Your task to perform on an android device: star an email in the gmail app Image 0: 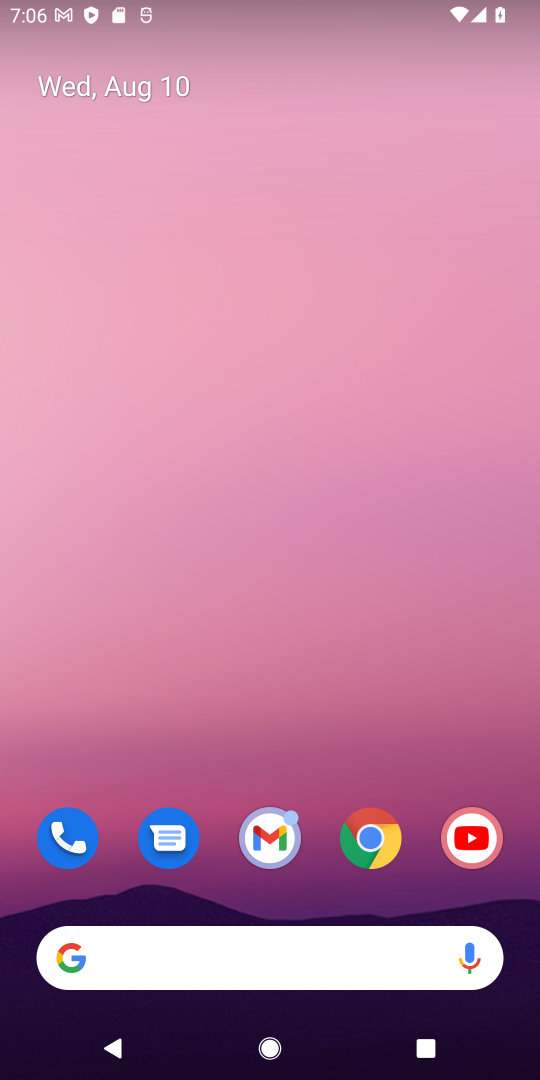
Step 0: drag from (295, 862) to (386, 231)
Your task to perform on an android device: star an email in the gmail app Image 1: 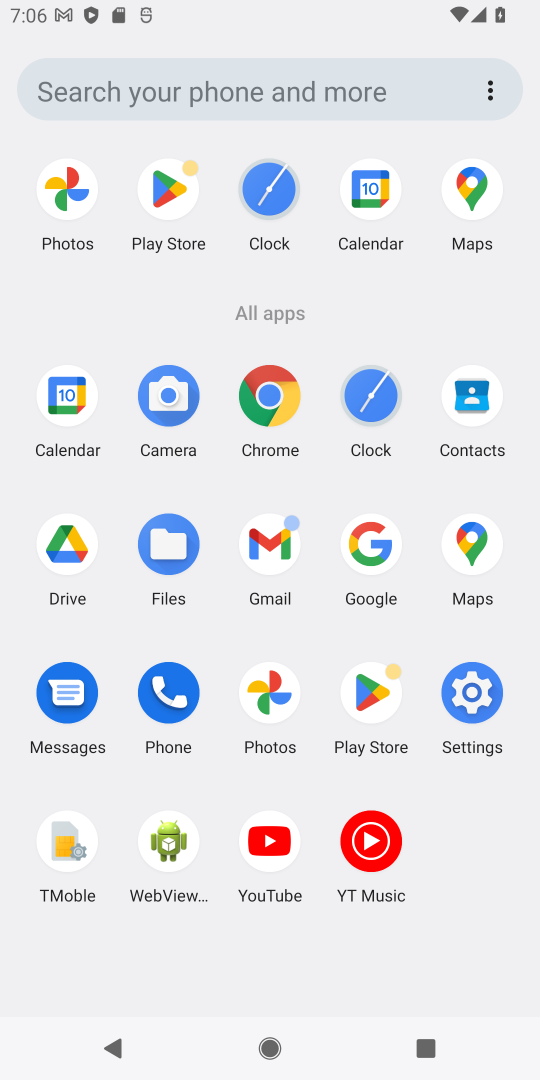
Step 1: click (269, 538)
Your task to perform on an android device: star an email in the gmail app Image 2: 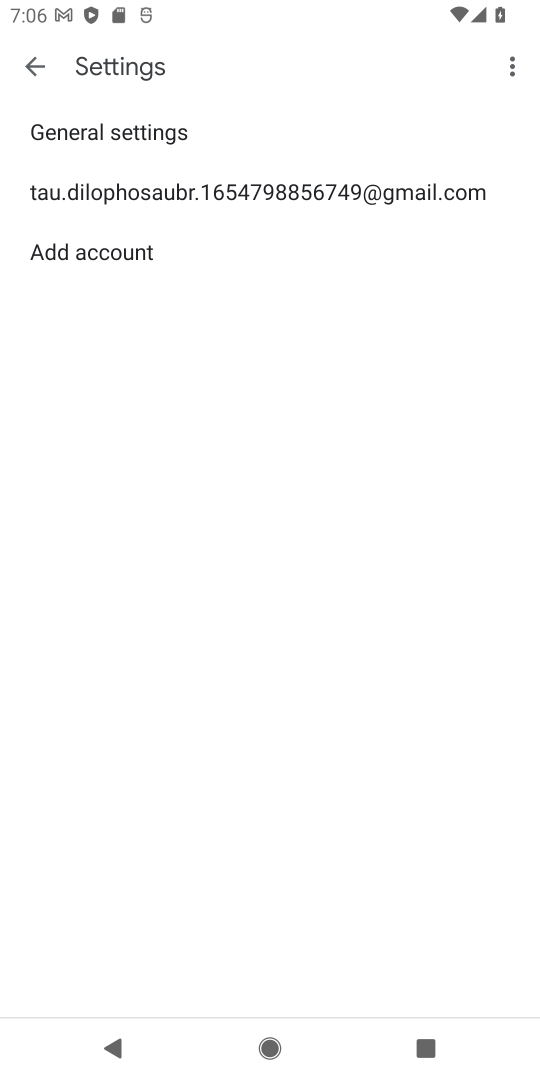
Step 2: press home button
Your task to perform on an android device: star an email in the gmail app Image 3: 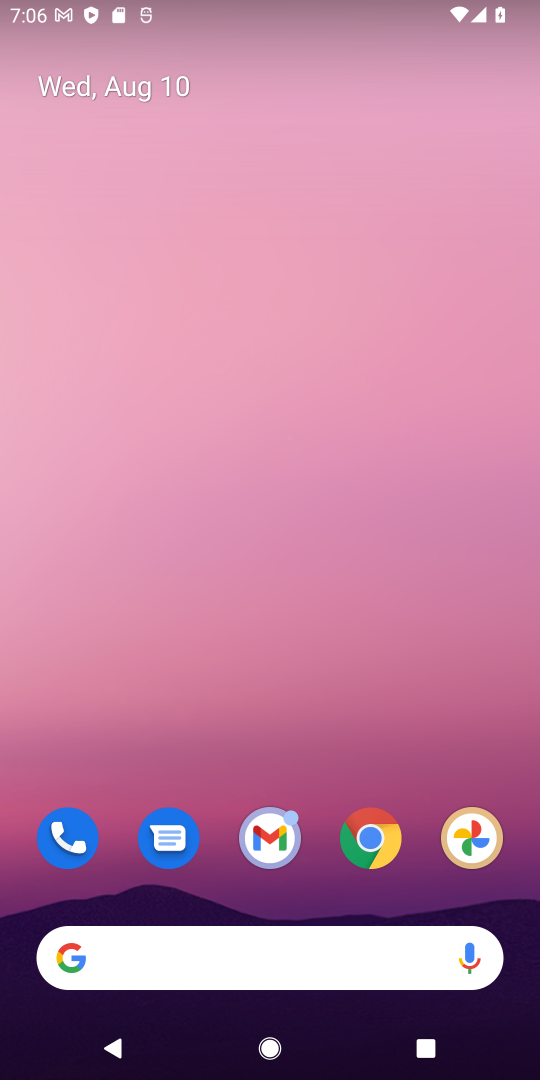
Step 3: drag from (312, 816) to (317, 236)
Your task to perform on an android device: star an email in the gmail app Image 4: 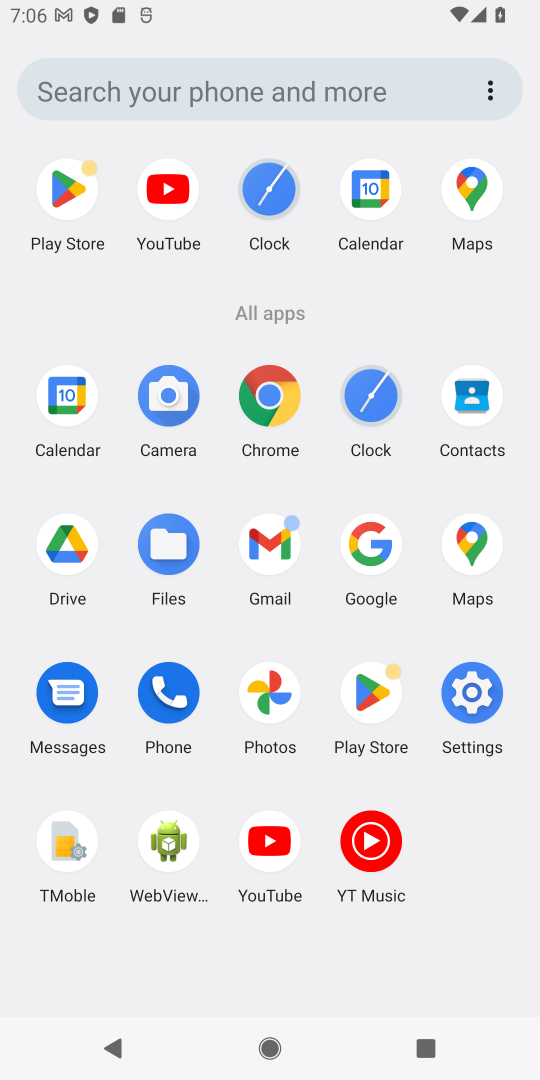
Step 4: click (255, 548)
Your task to perform on an android device: star an email in the gmail app Image 5: 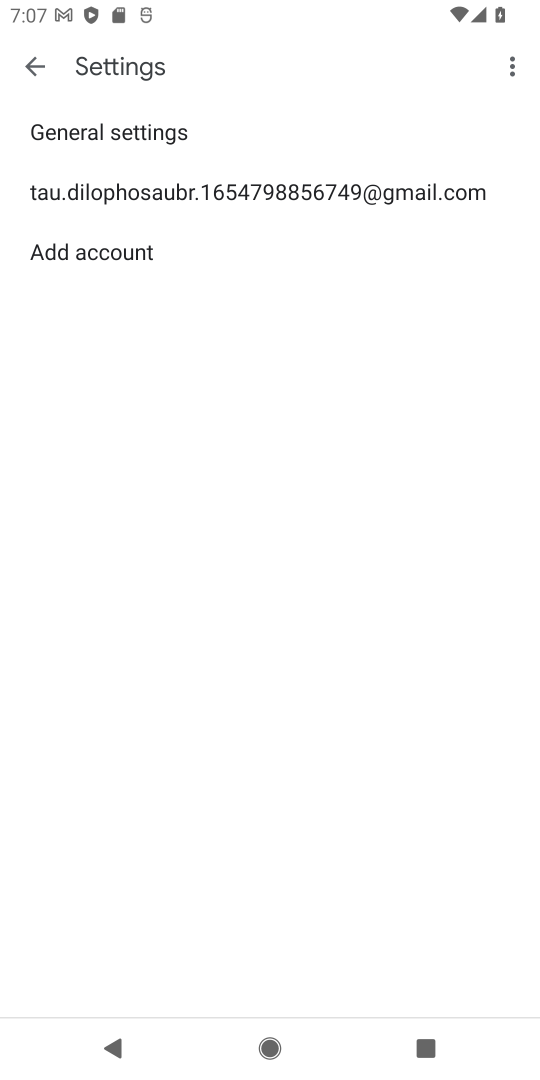
Step 5: click (29, 66)
Your task to perform on an android device: star an email in the gmail app Image 6: 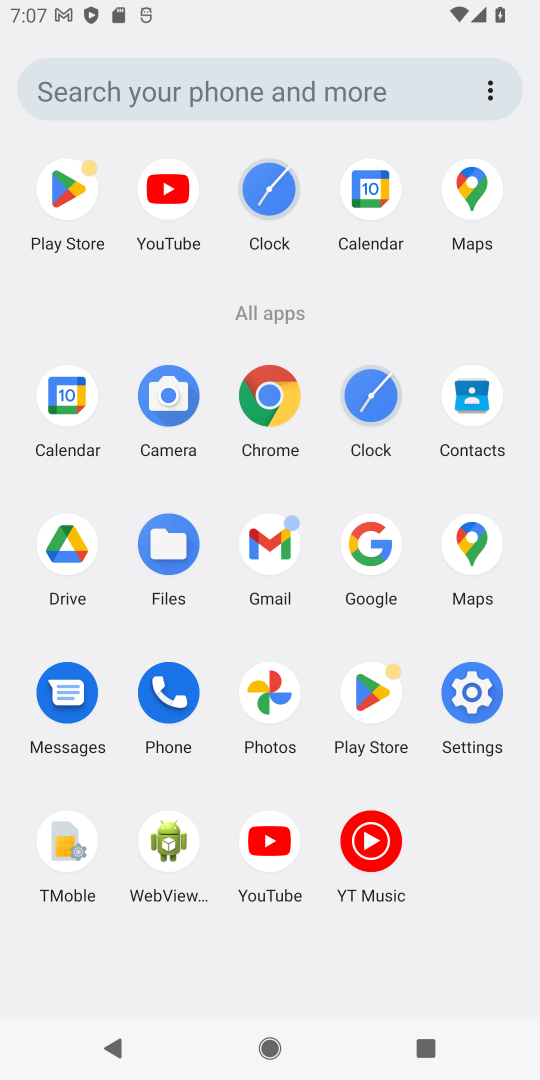
Step 6: click (270, 533)
Your task to perform on an android device: star an email in the gmail app Image 7: 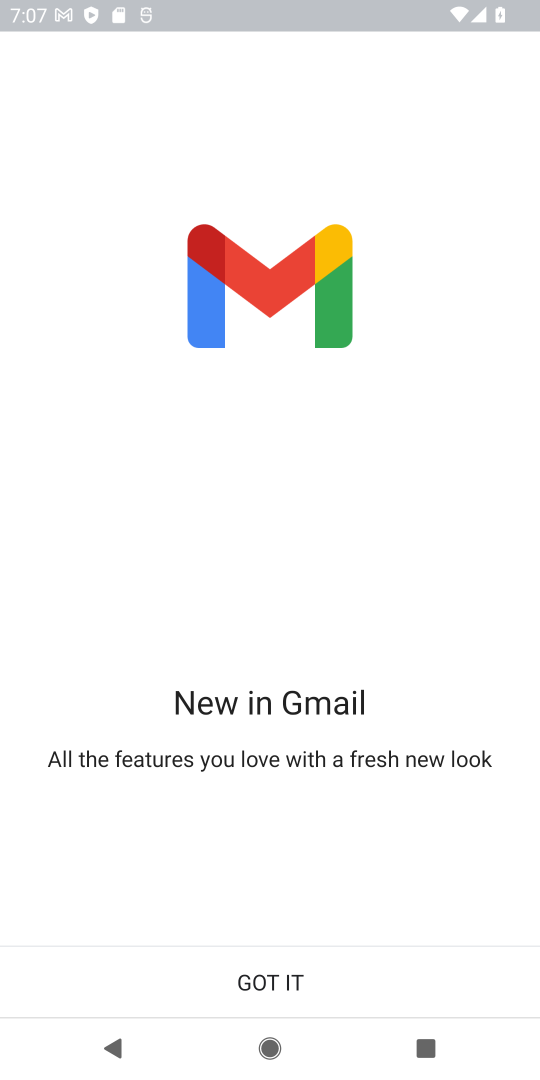
Step 7: click (261, 977)
Your task to perform on an android device: star an email in the gmail app Image 8: 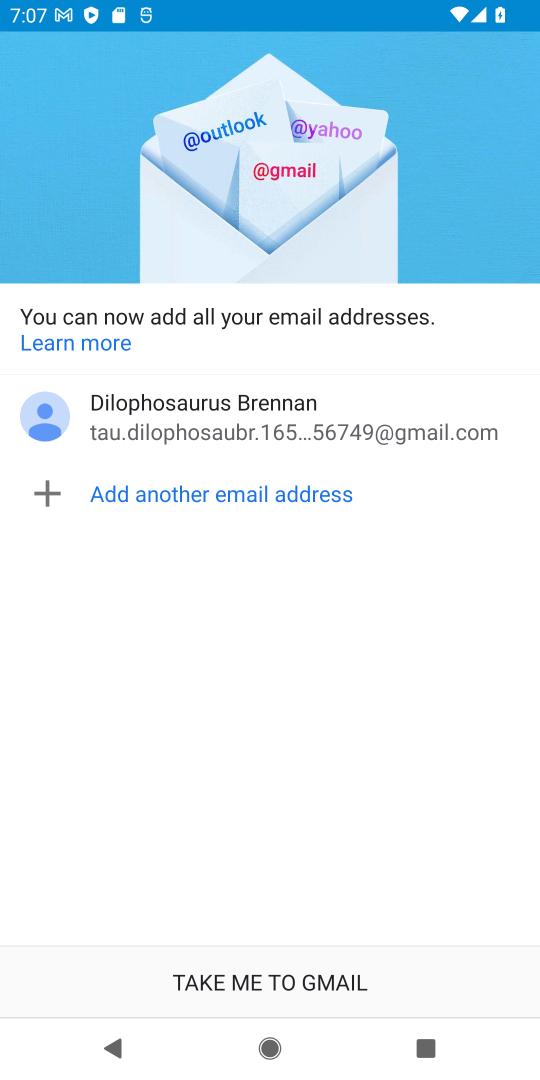
Step 8: click (329, 976)
Your task to perform on an android device: star an email in the gmail app Image 9: 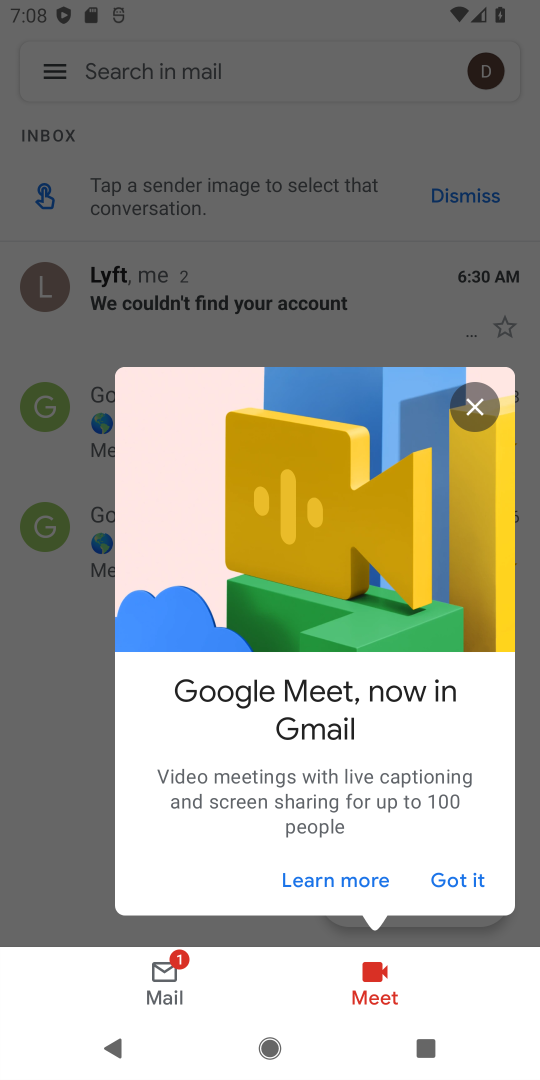
Step 9: click (473, 400)
Your task to perform on an android device: star an email in the gmail app Image 10: 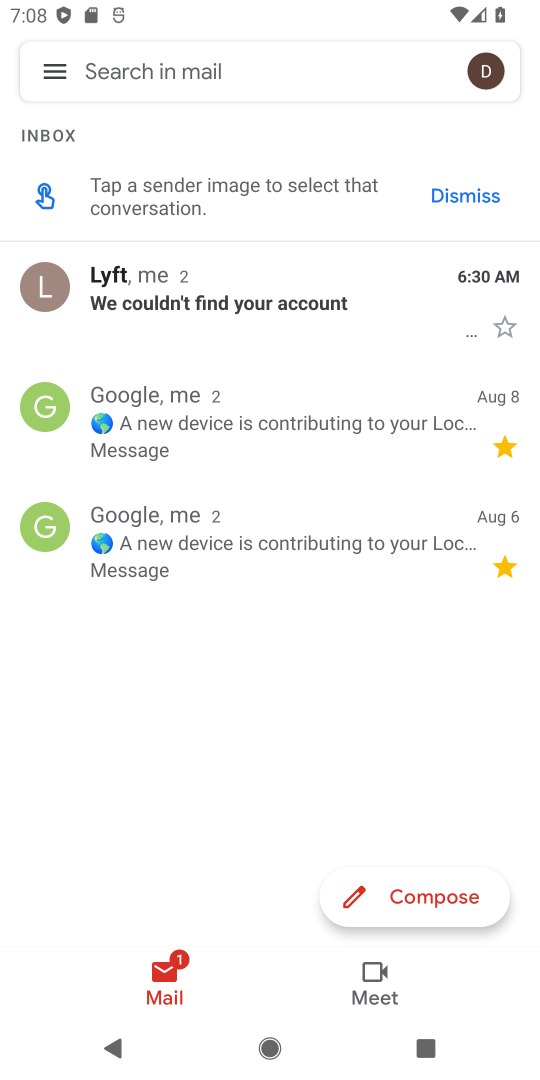
Step 10: click (274, 314)
Your task to perform on an android device: star an email in the gmail app Image 11: 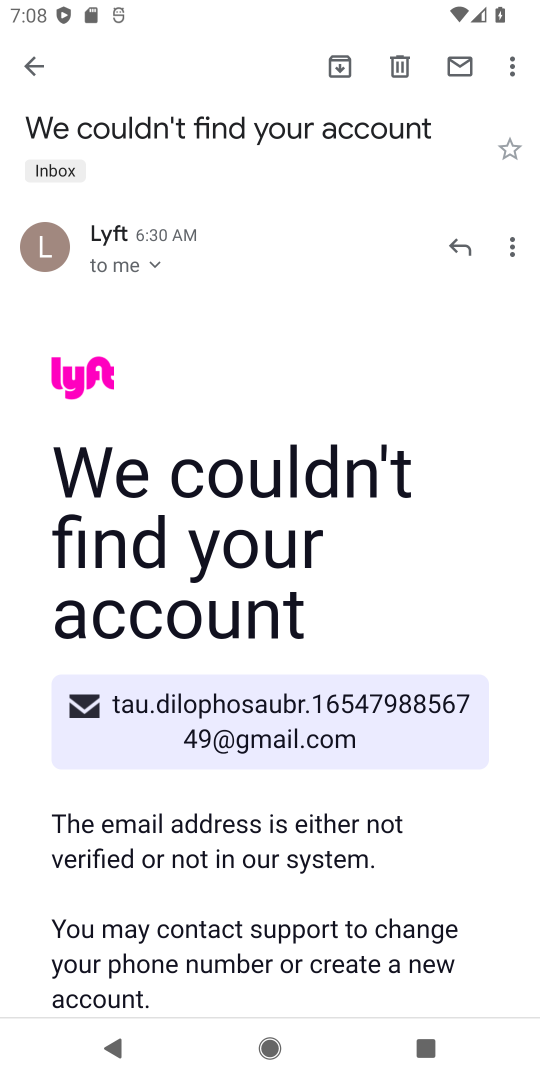
Step 11: click (20, 62)
Your task to perform on an android device: star an email in the gmail app Image 12: 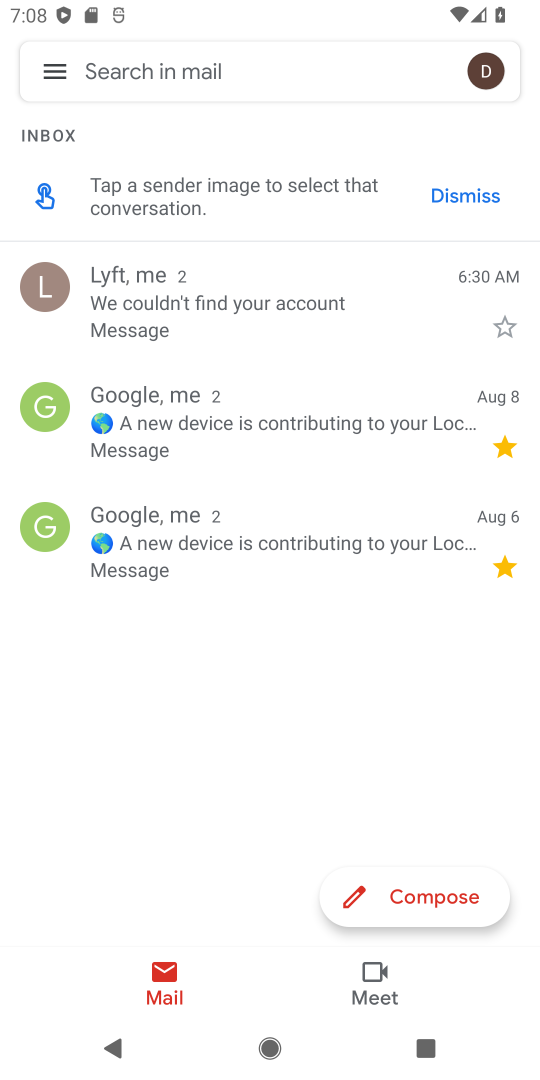
Step 12: click (53, 283)
Your task to perform on an android device: star an email in the gmail app Image 13: 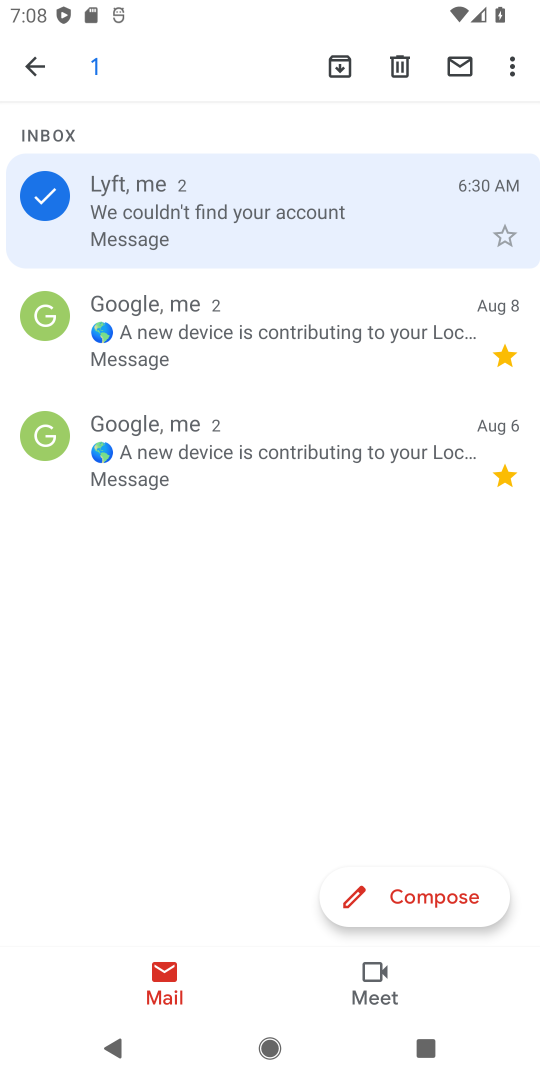
Step 13: click (508, 231)
Your task to perform on an android device: star an email in the gmail app Image 14: 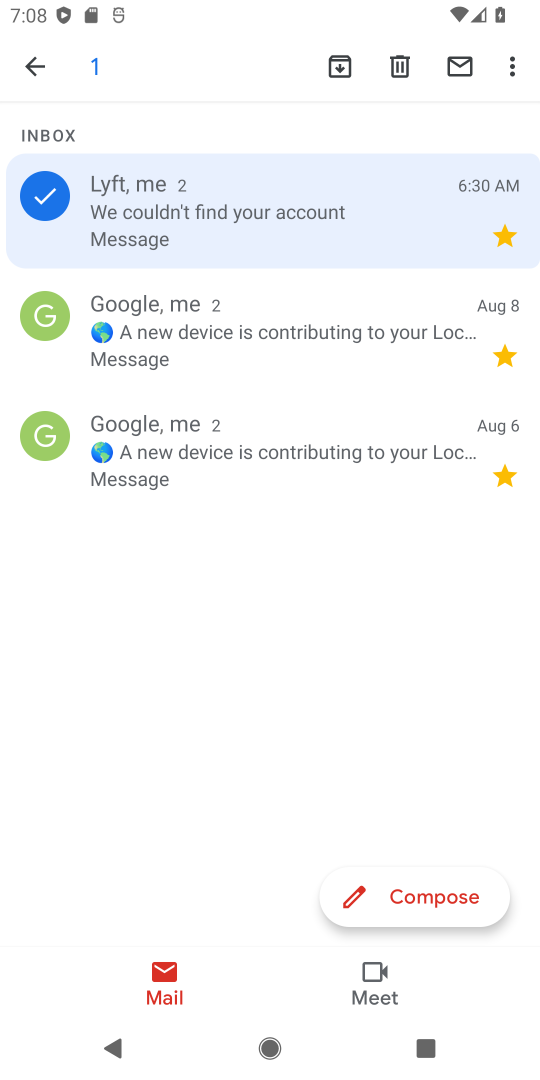
Step 14: task complete